Your task to perform on an android device: turn off translation in the chrome app Image 0: 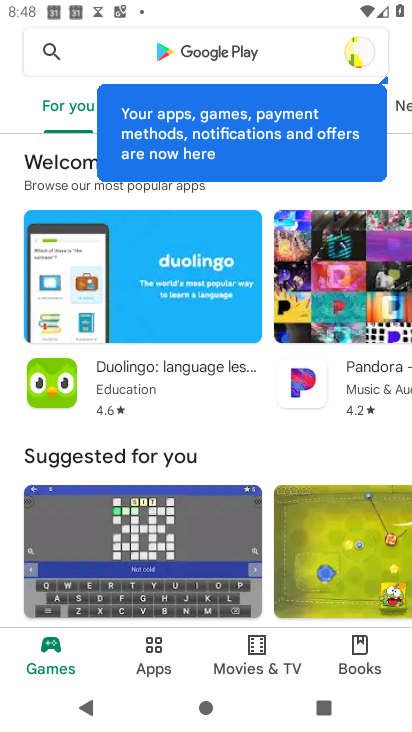
Step 0: press home button
Your task to perform on an android device: turn off translation in the chrome app Image 1: 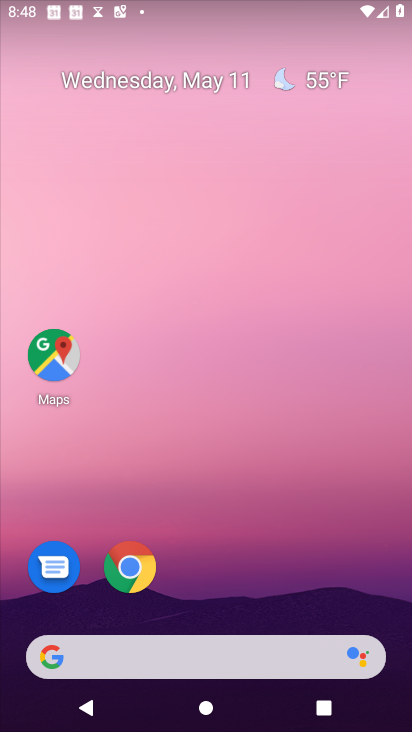
Step 1: click (150, 589)
Your task to perform on an android device: turn off translation in the chrome app Image 2: 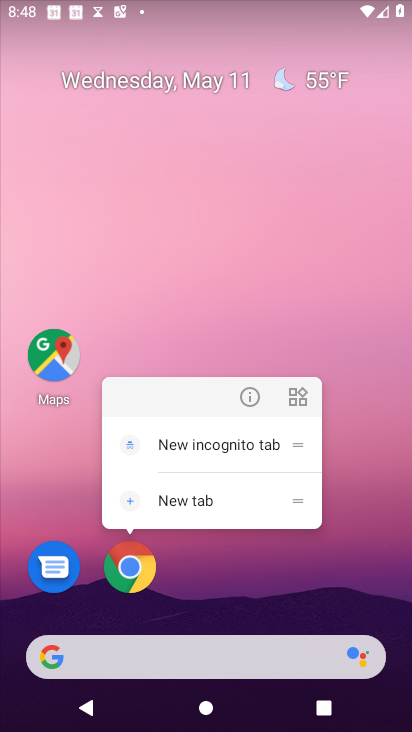
Step 2: click (149, 588)
Your task to perform on an android device: turn off translation in the chrome app Image 3: 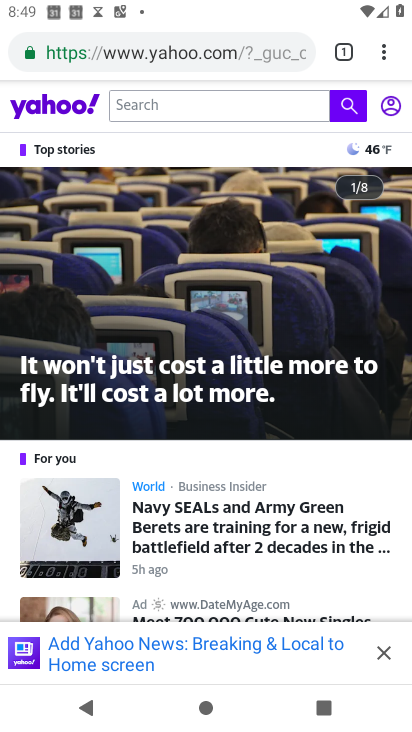
Step 3: click (382, 650)
Your task to perform on an android device: turn off translation in the chrome app Image 4: 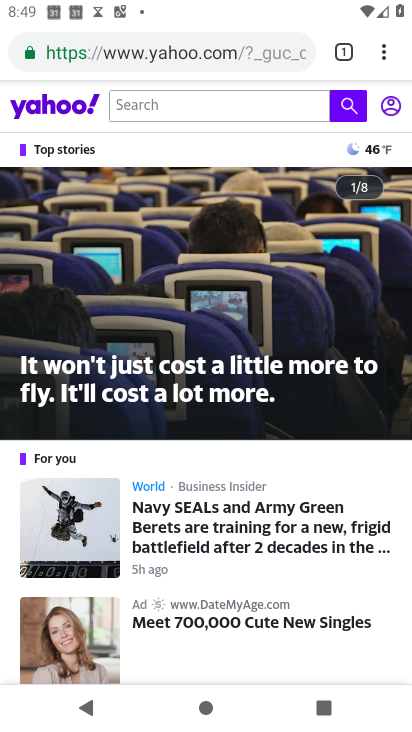
Step 4: click (385, 53)
Your task to perform on an android device: turn off translation in the chrome app Image 5: 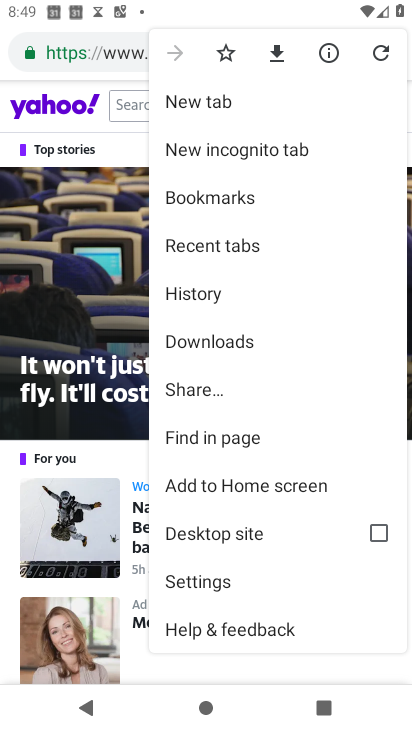
Step 5: click (222, 586)
Your task to perform on an android device: turn off translation in the chrome app Image 6: 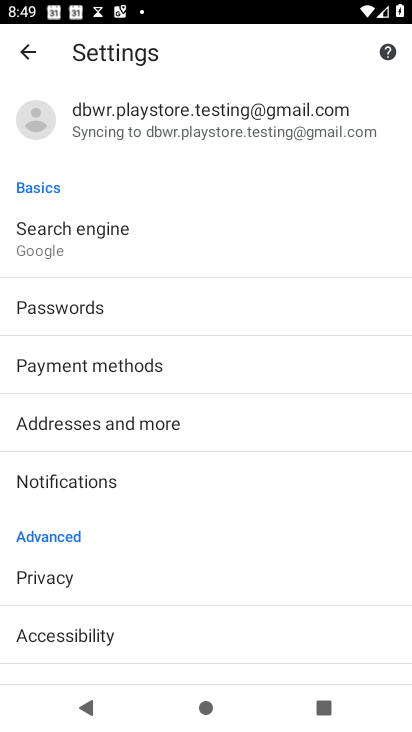
Step 6: drag from (122, 547) to (203, 226)
Your task to perform on an android device: turn off translation in the chrome app Image 7: 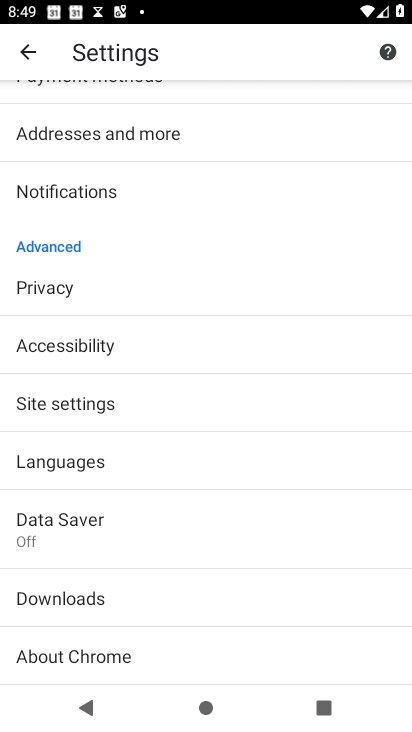
Step 7: click (98, 475)
Your task to perform on an android device: turn off translation in the chrome app Image 8: 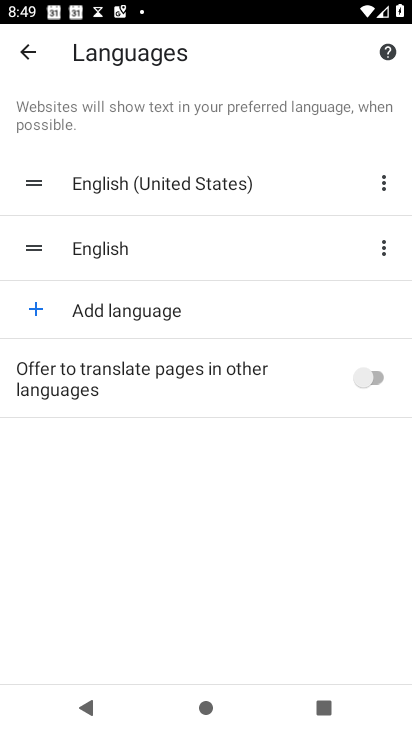
Step 8: task complete